Your task to perform on an android device: What's the weather? Image 0: 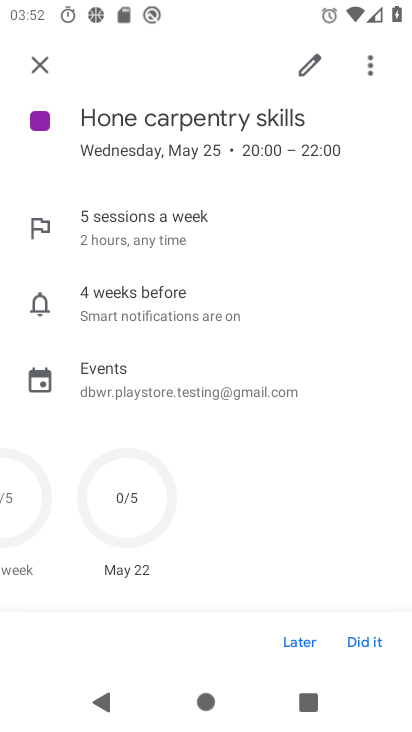
Step 0: press back button
Your task to perform on an android device: What's the weather? Image 1: 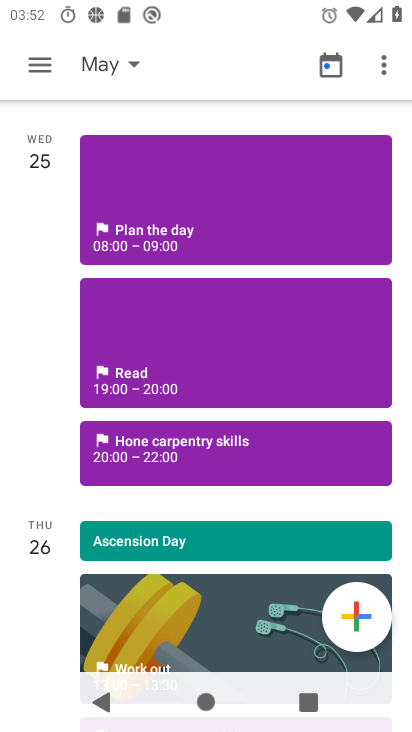
Step 1: press back button
Your task to perform on an android device: What's the weather? Image 2: 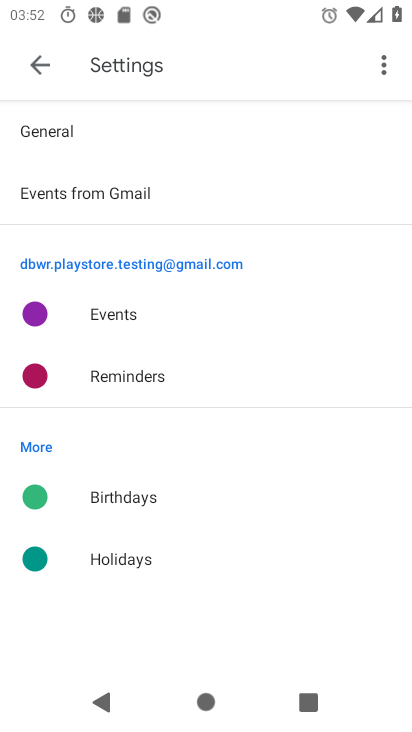
Step 2: press back button
Your task to perform on an android device: What's the weather? Image 3: 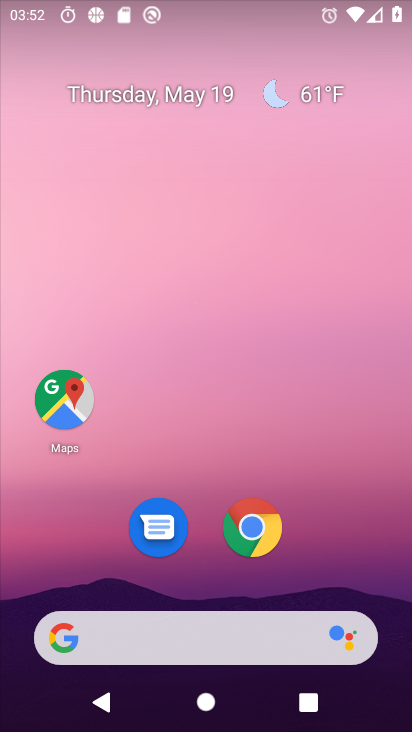
Step 3: click (306, 95)
Your task to perform on an android device: What's the weather? Image 4: 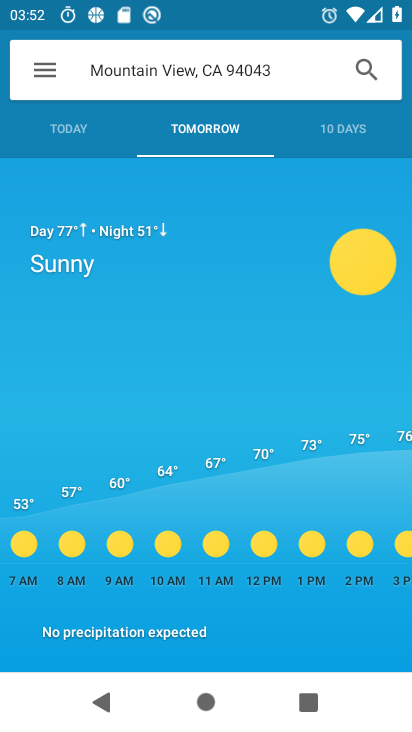
Step 4: task complete